Your task to perform on an android device: check the backup settings in the google photos Image 0: 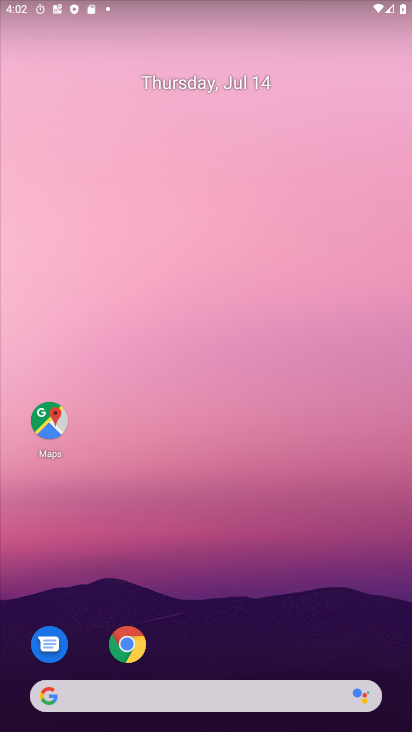
Step 0: drag from (202, 498) to (217, 15)
Your task to perform on an android device: check the backup settings in the google photos Image 1: 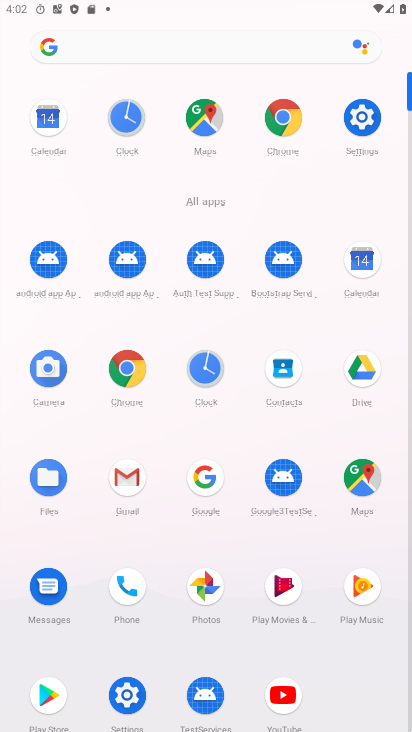
Step 1: click (203, 579)
Your task to perform on an android device: check the backup settings in the google photos Image 2: 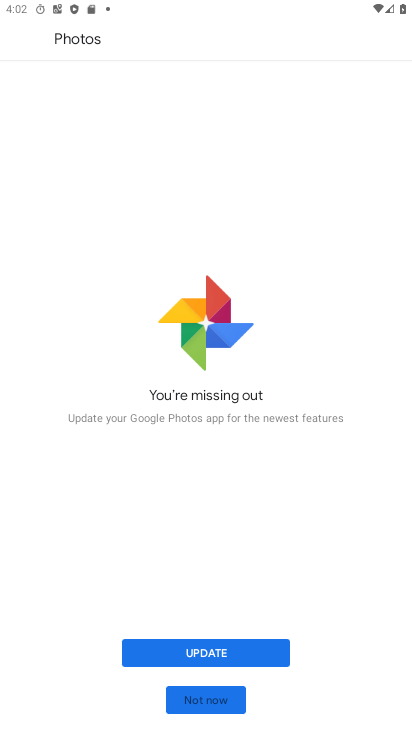
Step 2: click (218, 702)
Your task to perform on an android device: check the backup settings in the google photos Image 3: 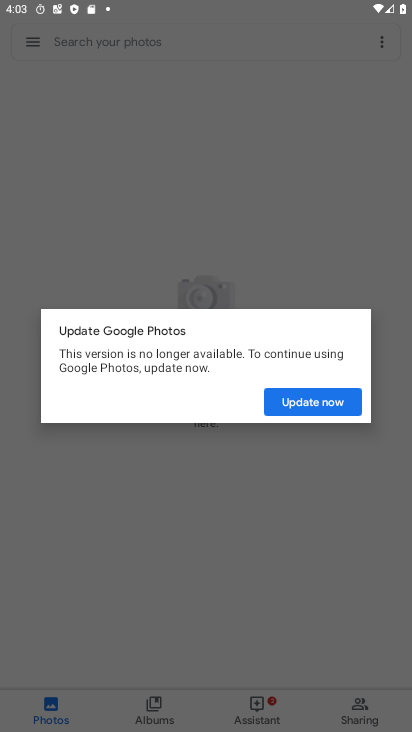
Step 3: click (293, 388)
Your task to perform on an android device: check the backup settings in the google photos Image 4: 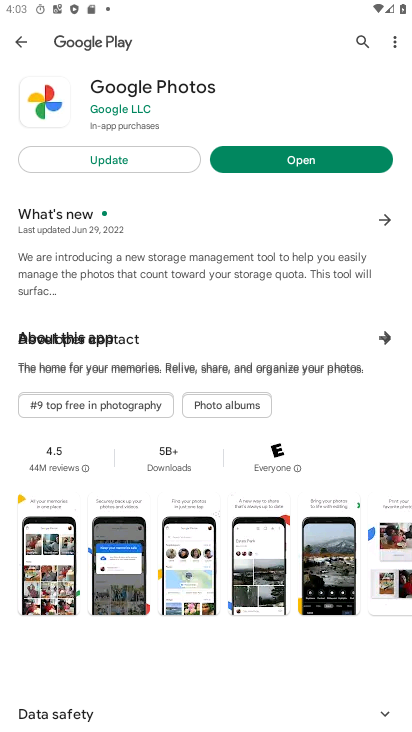
Step 4: click (293, 160)
Your task to perform on an android device: check the backup settings in the google photos Image 5: 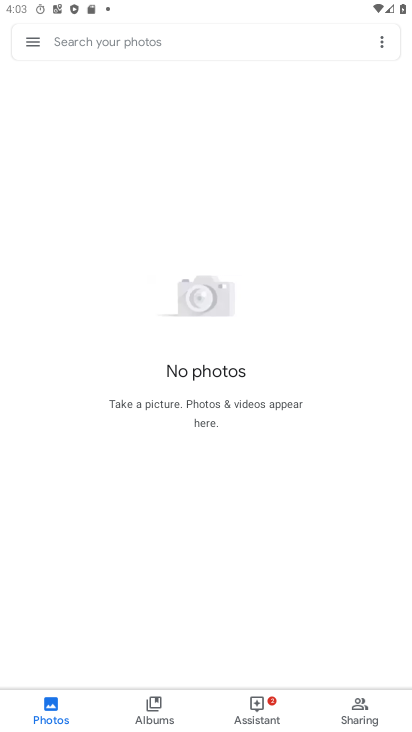
Step 5: click (37, 42)
Your task to perform on an android device: check the backup settings in the google photos Image 6: 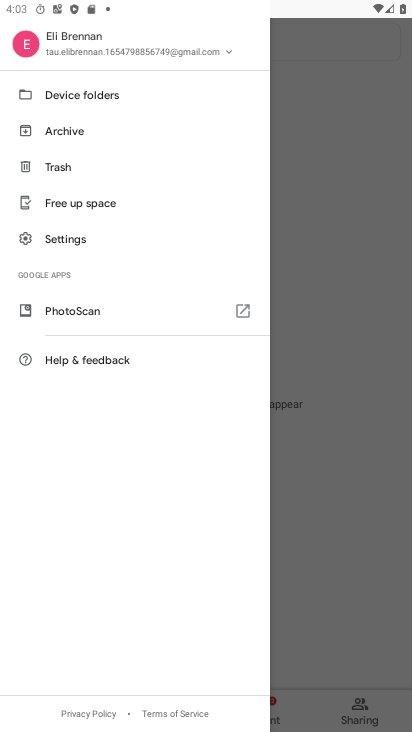
Step 6: click (69, 239)
Your task to perform on an android device: check the backup settings in the google photos Image 7: 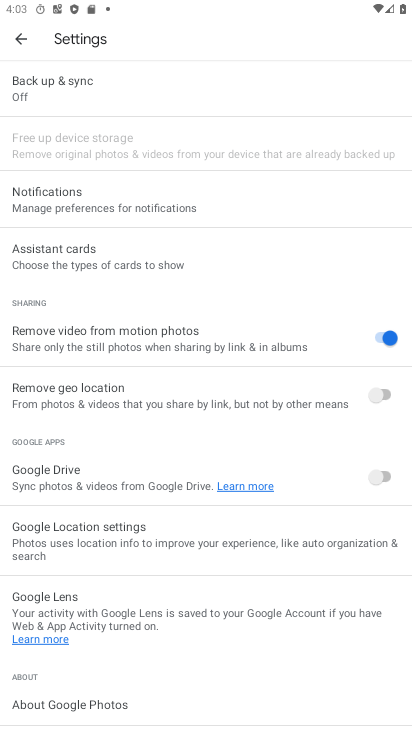
Step 7: click (93, 90)
Your task to perform on an android device: check the backup settings in the google photos Image 8: 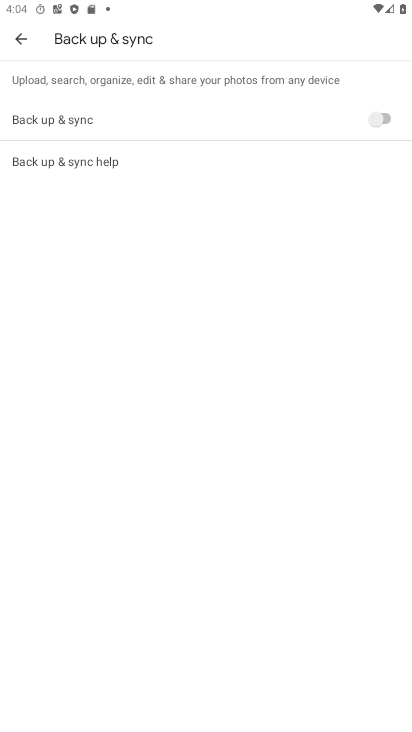
Step 8: task complete